Your task to perform on an android device: Go to sound settings Image 0: 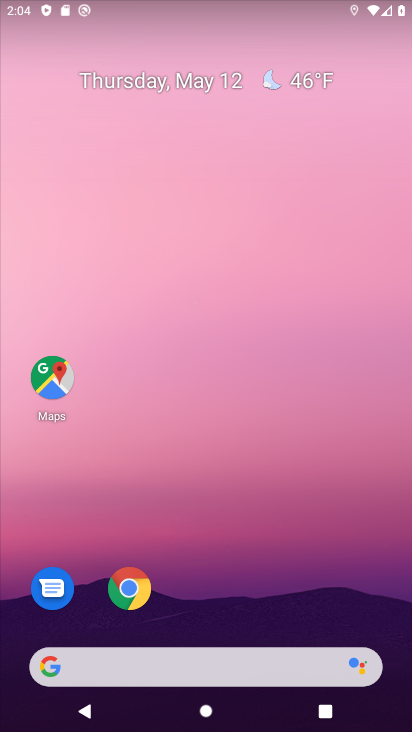
Step 0: drag from (399, 621) to (393, 87)
Your task to perform on an android device: Go to sound settings Image 1: 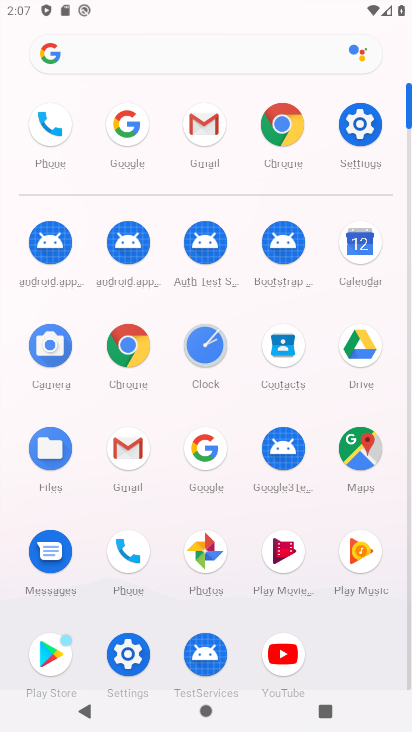
Step 1: click (140, 646)
Your task to perform on an android device: Go to sound settings Image 2: 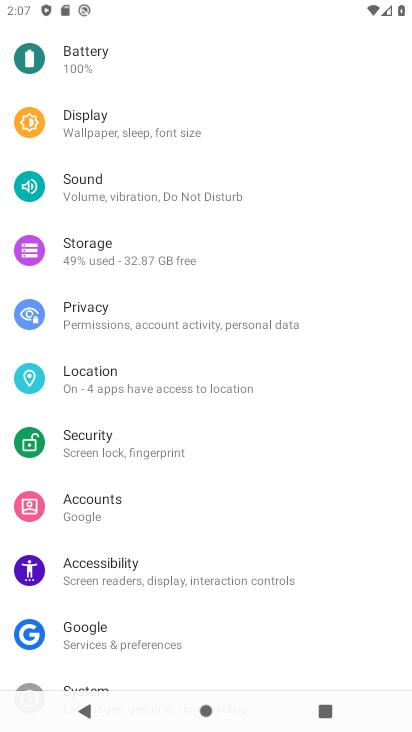
Step 2: click (139, 207)
Your task to perform on an android device: Go to sound settings Image 3: 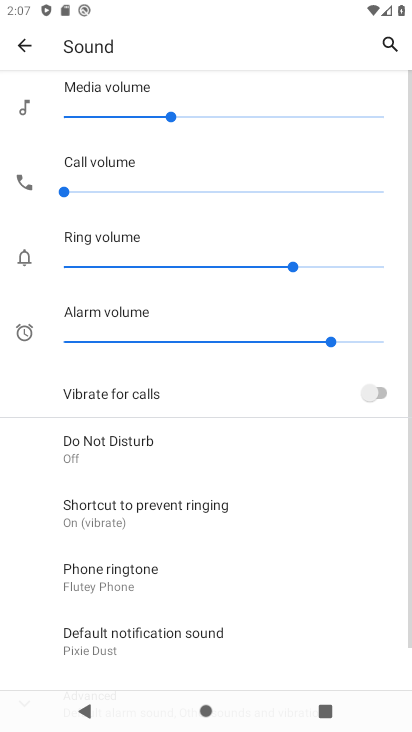
Step 3: task complete